Your task to perform on an android device: turn on location history Image 0: 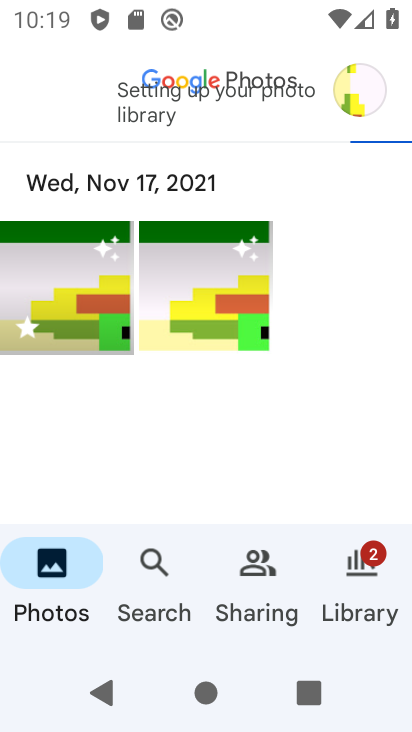
Step 0: press home button
Your task to perform on an android device: turn on location history Image 1: 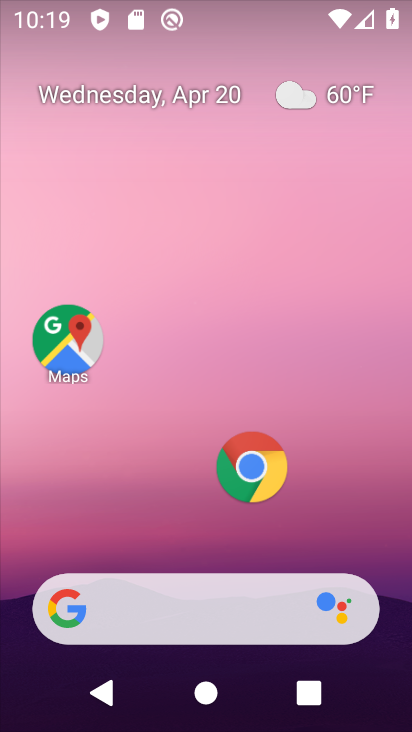
Step 1: drag from (331, 508) to (401, 184)
Your task to perform on an android device: turn on location history Image 2: 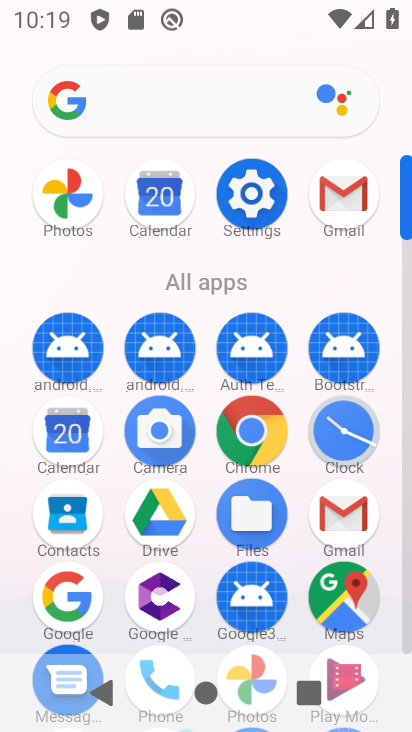
Step 2: click (248, 208)
Your task to perform on an android device: turn on location history Image 3: 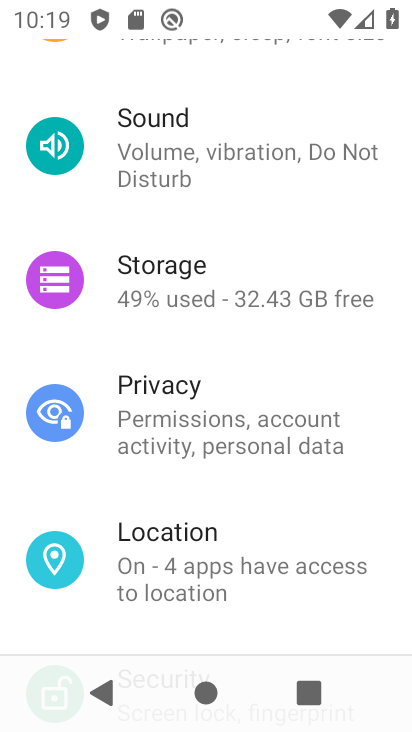
Step 3: click (187, 546)
Your task to perform on an android device: turn on location history Image 4: 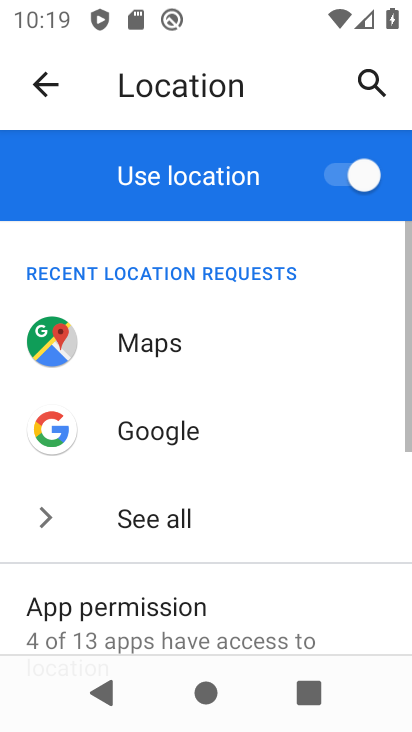
Step 4: drag from (164, 594) to (186, 487)
Your task to perform on an android device: turn on location history Image 5: 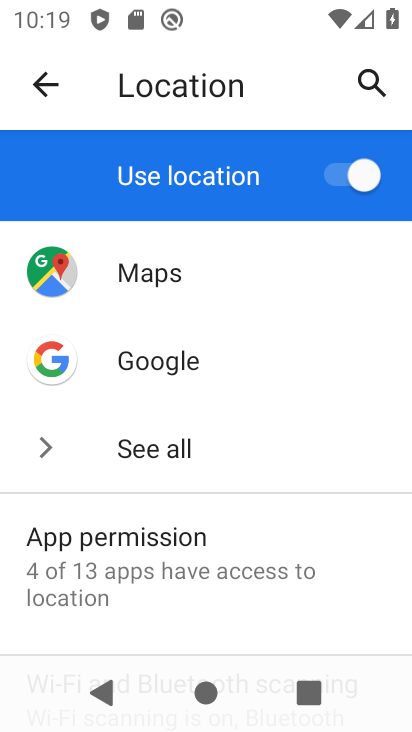
Step 5: drag from (209, 567) to (246, 473)
Your task to perform on an android device: turn on location history Image 6: 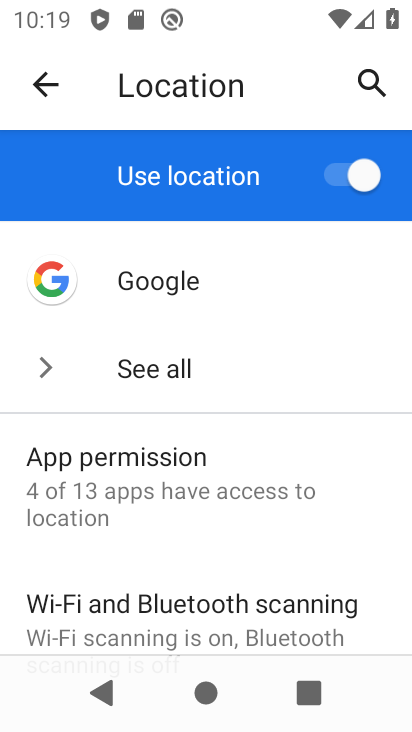
Step 6: drag from (249, 546) to (272, 452)
Your task to perform on an android device: turn on location history Image 7: 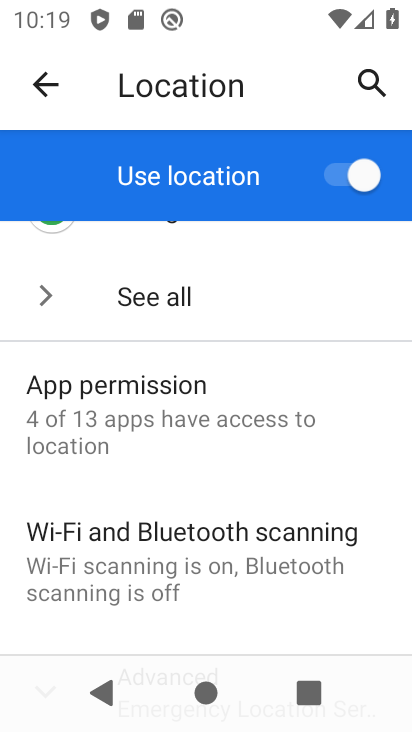
Step 7: drag from (282, 500) to (301, 395)
Your task to perform on an android device: turn on location history Image 8: 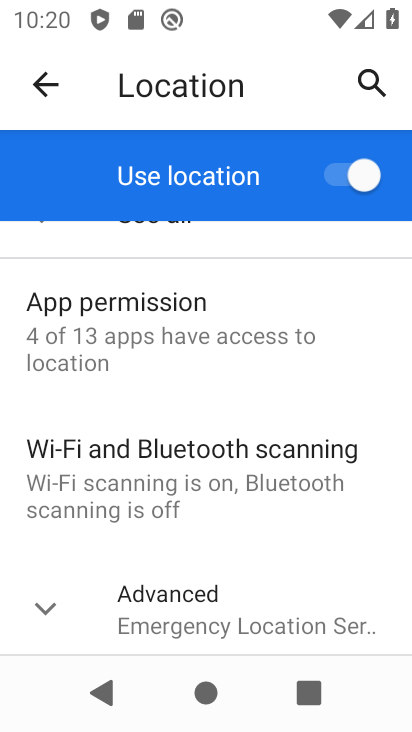
Step 8: drag from (296, 494) to (303, 390)
Your task to perform on an android device: turn on location history Image 9: 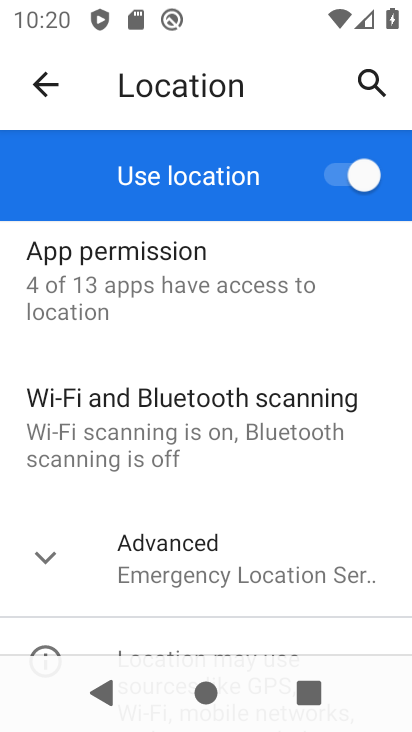
Step 9: click (210, 583)
Your task to perform on an android device: turn on location history Image 10: 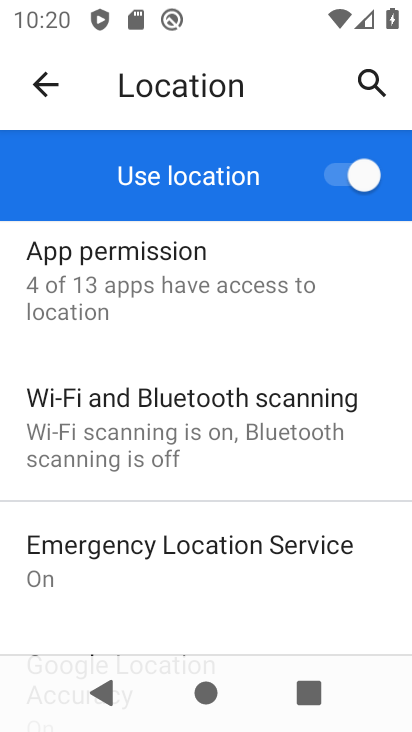
Step 10: drag from (218, 588) to (244, 516)
Your task to perform on an android device: turn on location history Image 11: 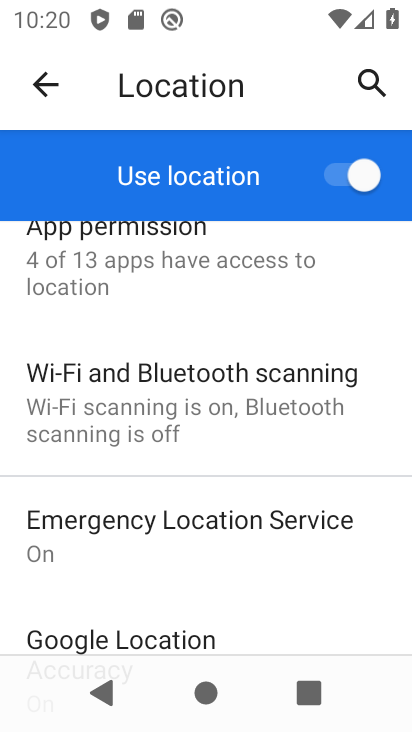
Step 11: drag from (267, 558) to (283, 470)
Your task to perform on an android device: turn on location history Image 12: 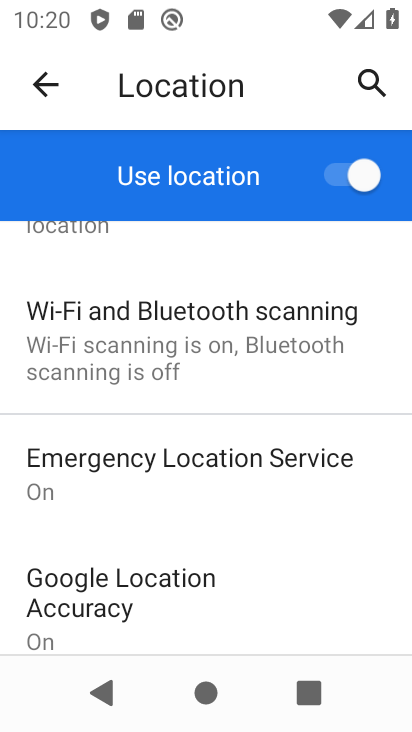
Step 12: drag from (302, 516) to (302, 411)
Your task to perform on an android device: turn on location history Image 13: 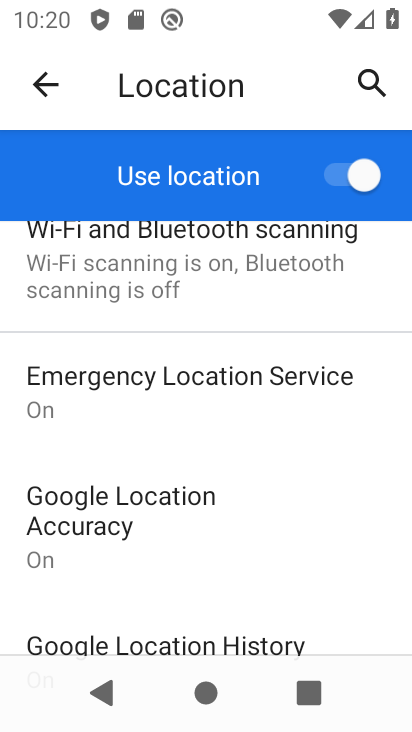
Step 13: drag from (290, 498) to (306, 371)
Your task to perform on an android device: turn on location history Image 14: 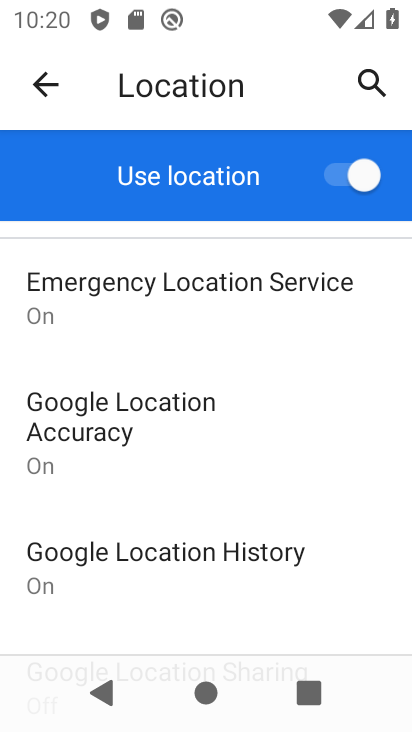
Step 14: click (228, 567)
Your task to perform on an android device: turn on location history Image 15: 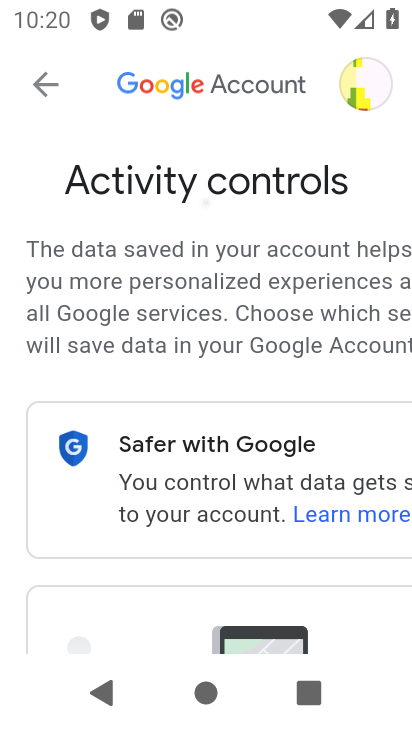
Step 15: task complete